Your task to perform on an android device: turn on location history Image 0: 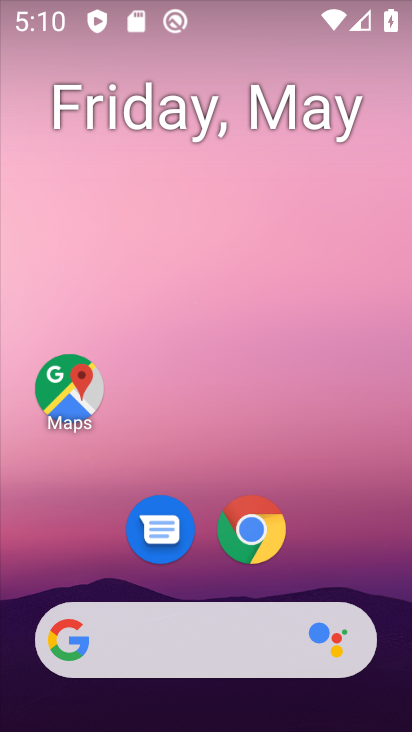
Step 0: drag from (195, 565) to (224, 102)
Your task to perform on an android device: turn on location history Image 1: 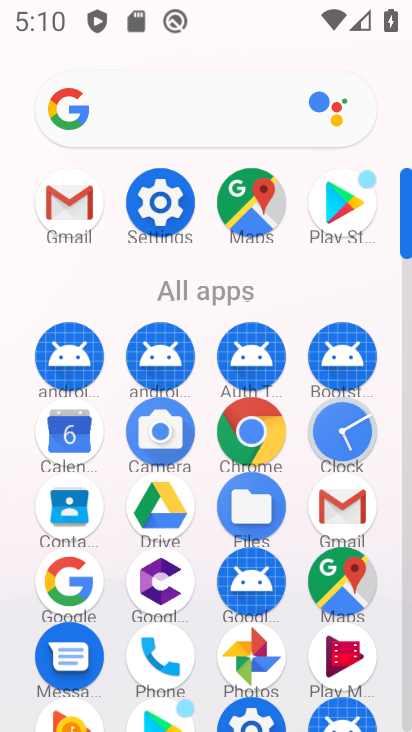
Step 1: click (160, 211)
Your task to perform on an android device: turn on location history Image 2: 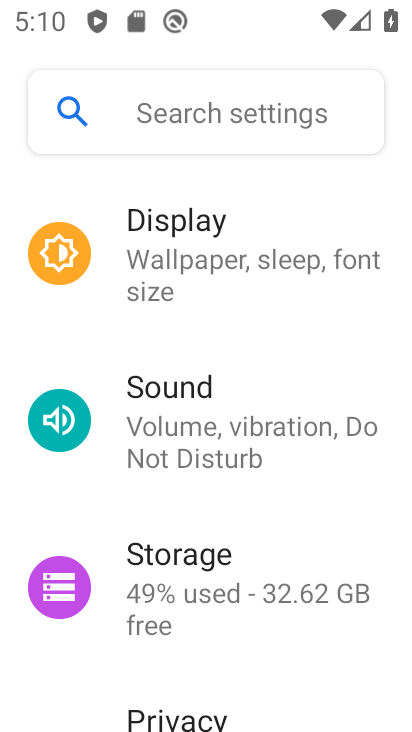
Step 2: drag from (93, 644) to (173, 332)
Your task to perform on an android device: turn on location history Image 3: 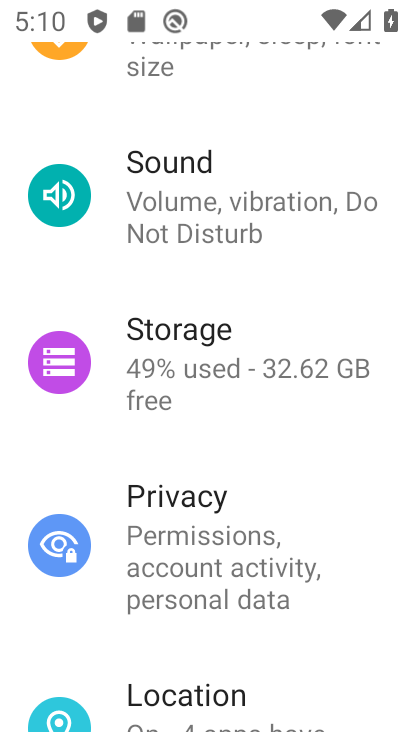
Step 3: click (113, 681)
Your task to perform on an android device: turn on location history Image 4: 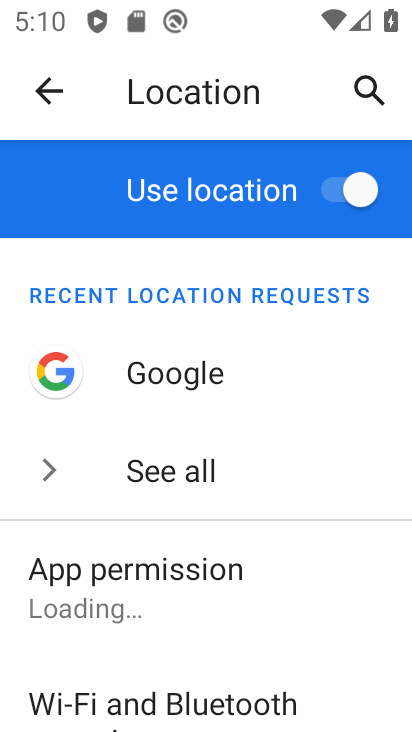
Step 4: drag from (139, 604) to (199, 179)
Your task to perform on an android device: turn on location history Image 5: 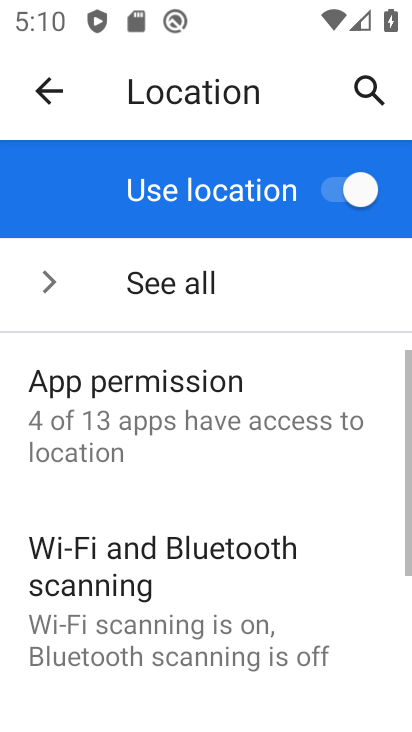
Step 5: drag from (96, 669) to (284, 53)
Your task to perform on an android device: turn on location history Image 6: 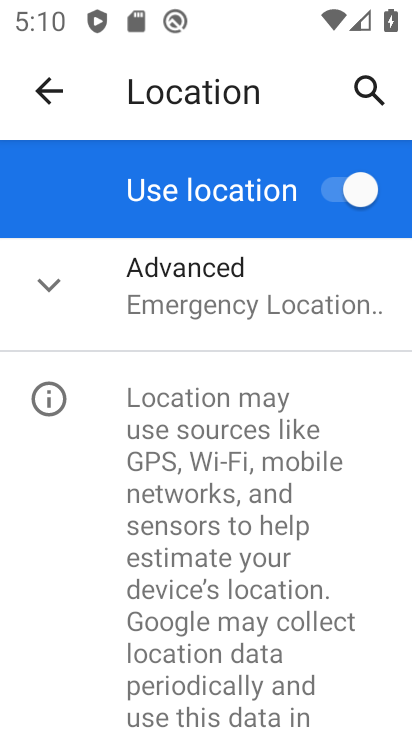
Step 6: click (172, 285)
Your task to perform on an android device: turn on location history Image 7: 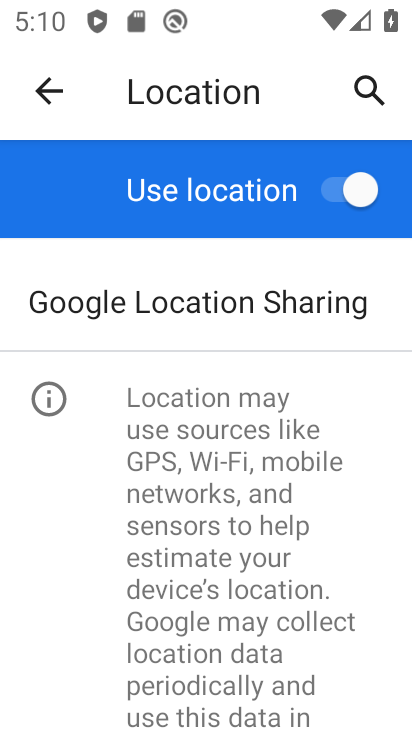
Step 7: click (172, 285)
Your task to perform on an android device: turn on location history Image 8: 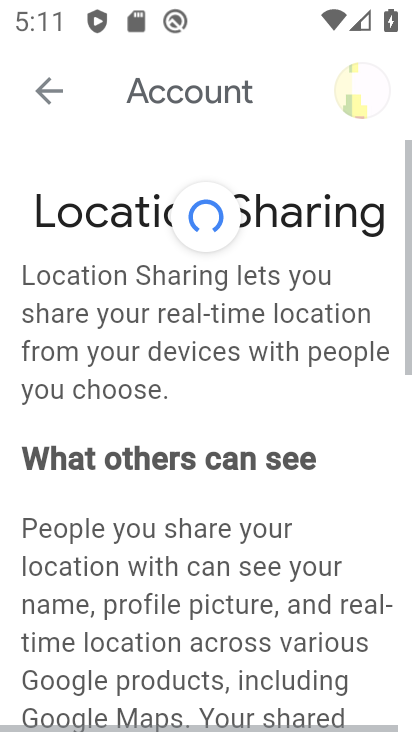
Step 8: click (172, 285)
Your task to perform on an android device: turn on location history Image 9: 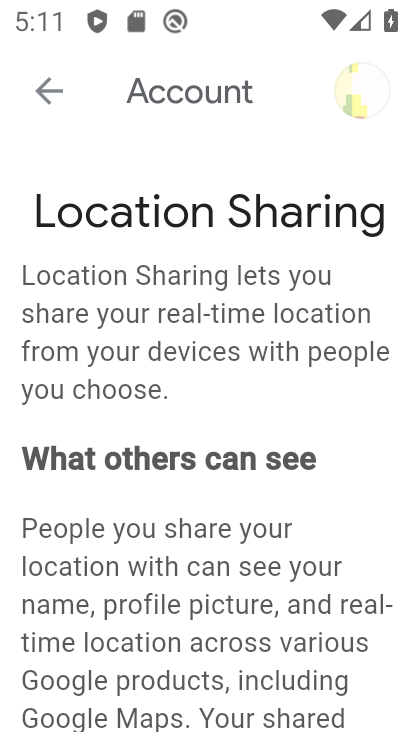
Step 9: click (172, 285)
Your task to perform on an android device: turn on location history Image 10: 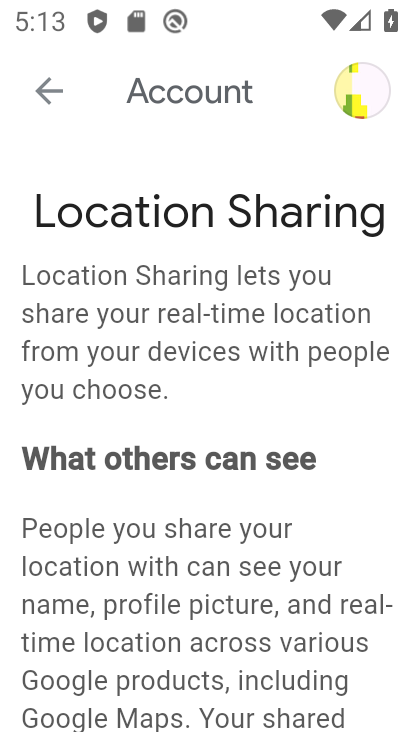
Step 10: drag from (163, 581) to (187, 138)
Your task to perform on an android device: turn on location history Image 11: 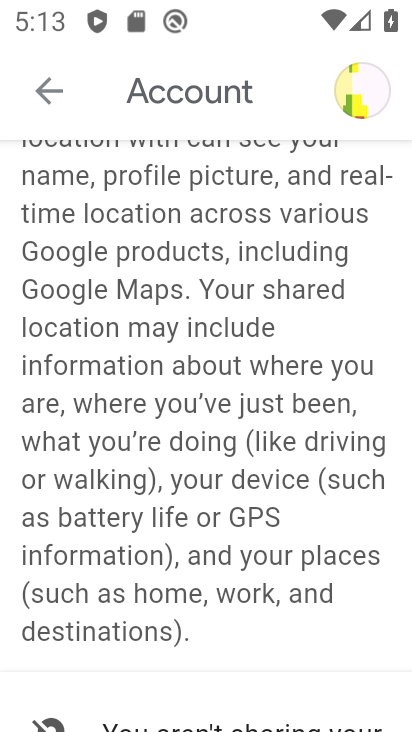
Step 11: drag from (210, 506) to (195, 86)
Your task to perform on an android device: turn on location history Image 12: 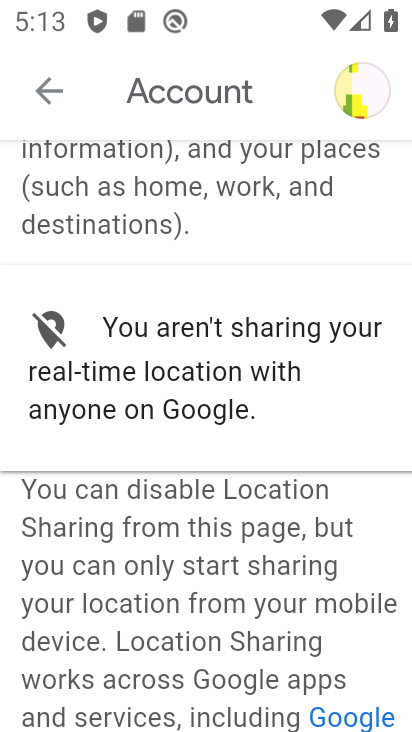
Step 12: drag from (135, 530) to (179, 60)
Your task to perform on an android device: turn on location history Image 13: 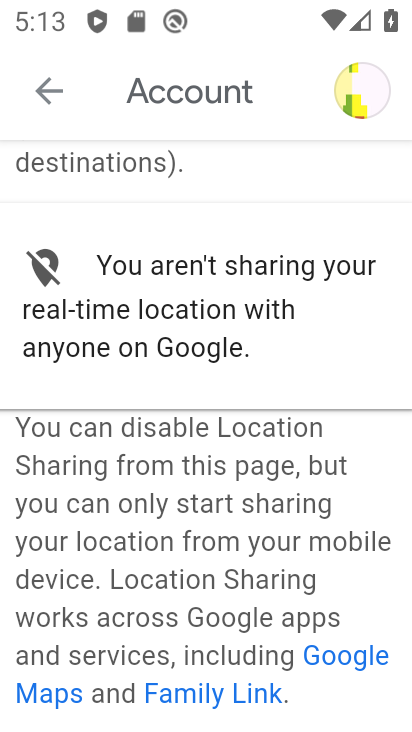
Step 13: drag from (48, 674) to (108, 173)
Your task to perform on an android device: turn on location history Image 14: 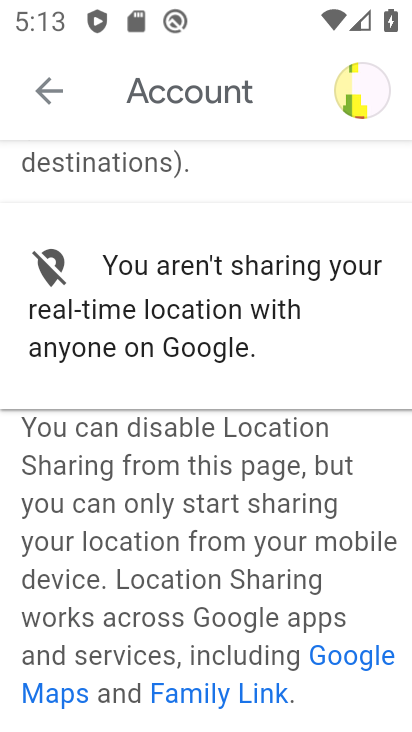
Step 14: drag from (146, 583) to (196, 227)
Your task to perform on an android device: turn on location history Image 15: 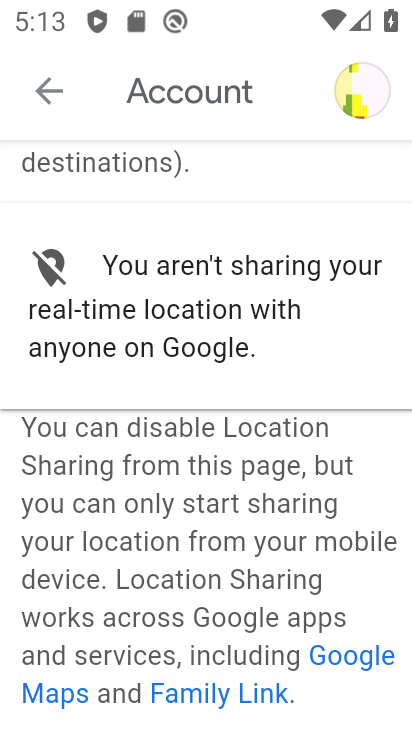
Step 15: drag from (251, 624) to (279, 206)
Your task to perform on an android device: turn on location history Image 16: 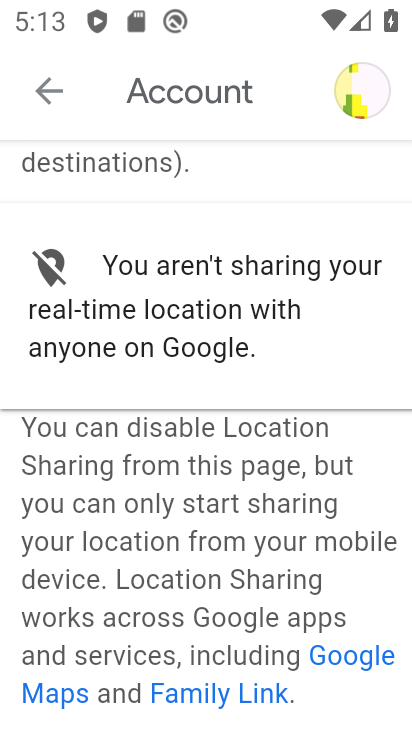
Step 16: click (9, 94)
Your task to perform on an android device: turn on location history Image 17: 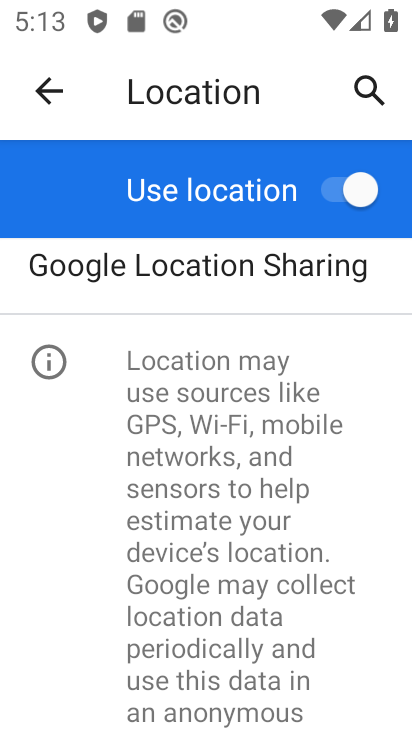
Step 17: task complete